Your task to perform on an android device: turn off javascript in the chrome app Image 0: 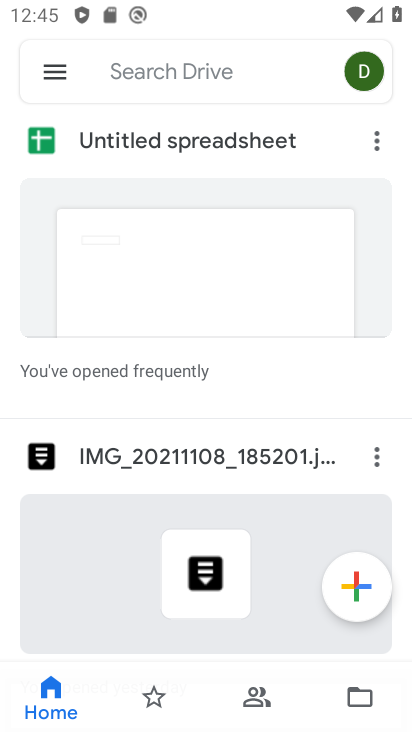
Step 0: press back button
Your task to perform on an android device: turn off javascript in the chrome app Image 1: 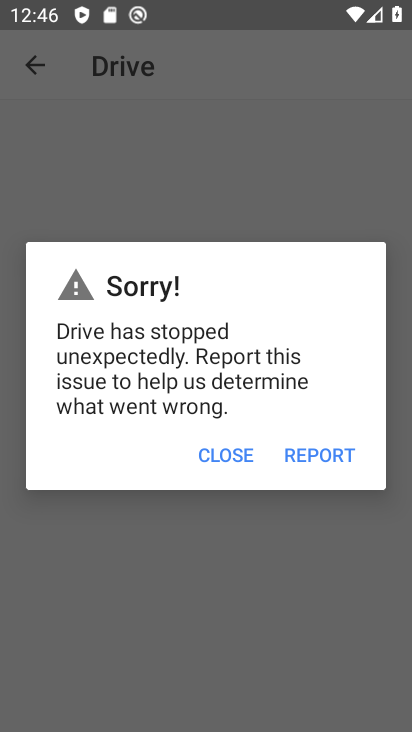
Step 1: press home button
Your task to perform on an android device: turn off javascript in the chrome app Image 2: 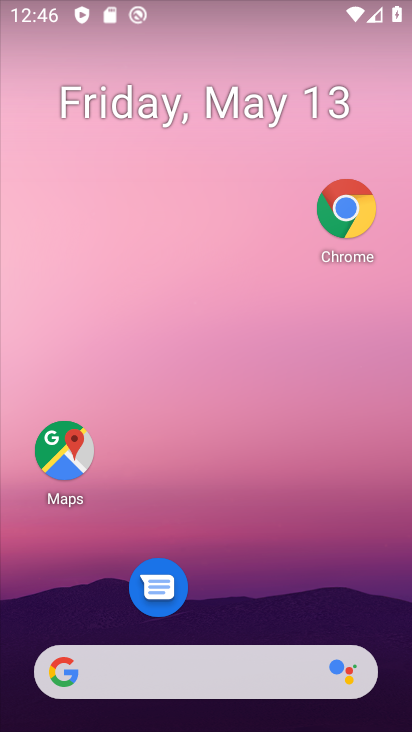
Step 2: click (340, 217)
Your task to perform on an android device: turn off javascript in the chrome app Image 3: 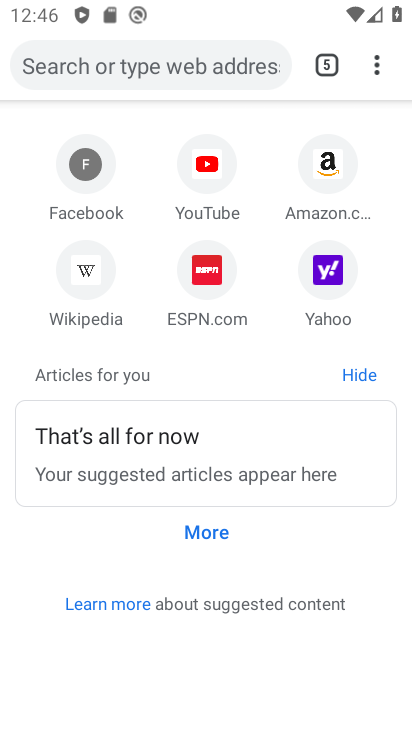
Step 3: drag from (375, 67) to (180, 543)
Your task to perform on an android device: turn off javascript in the chrome app Image 4: 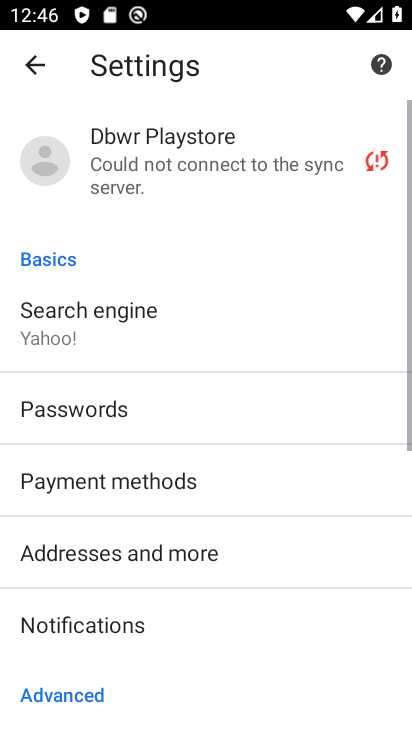
Step 4: drag from (132, 576) to (257, 58)
Your task to perform on an android device: turn off javascript in the chrome app Image 5: 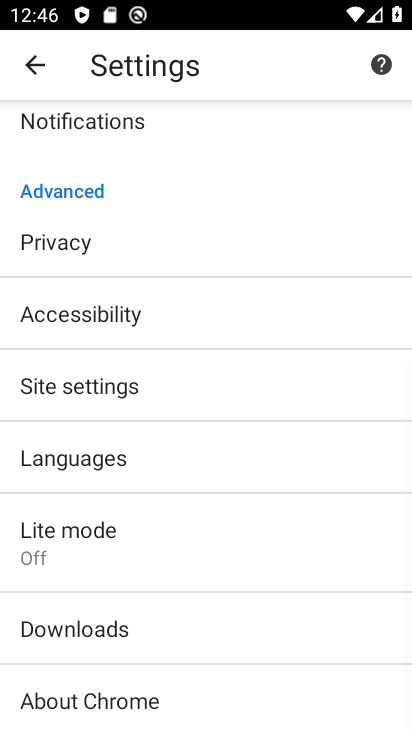
Step 5: click (80, 381)
Your task to perform on an android device: turn off javascript in the chrome app Image 6: 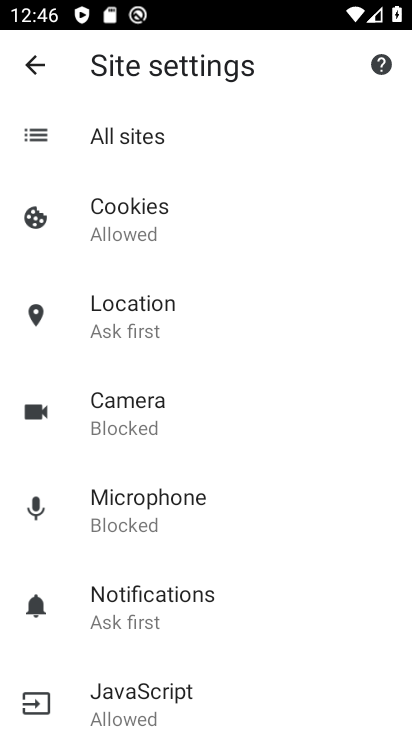
Step 6: click (128, 692)
Your task to perform on an android device: turn off javascript in the chrome app Image 7: 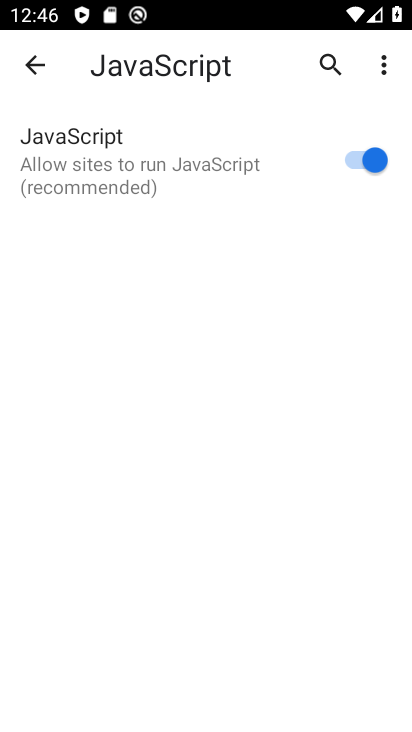
Step 7: click (363, 149)
Your task to perform on an android device: turn off javascript in the chrome app Image 8: 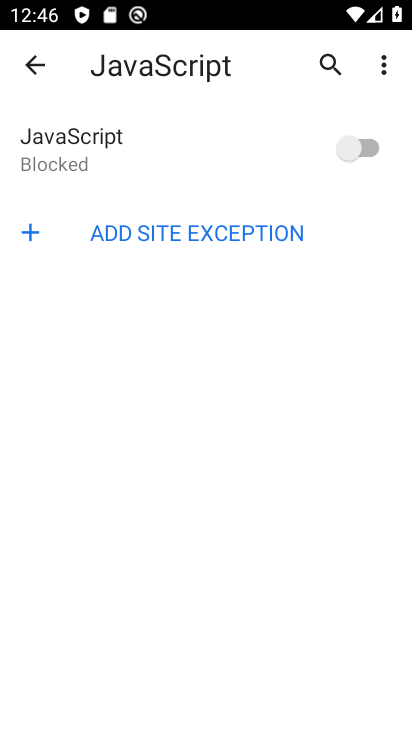
Step 8: task complete